Your task to perform on an android device: turn off airplane mode Image 0: 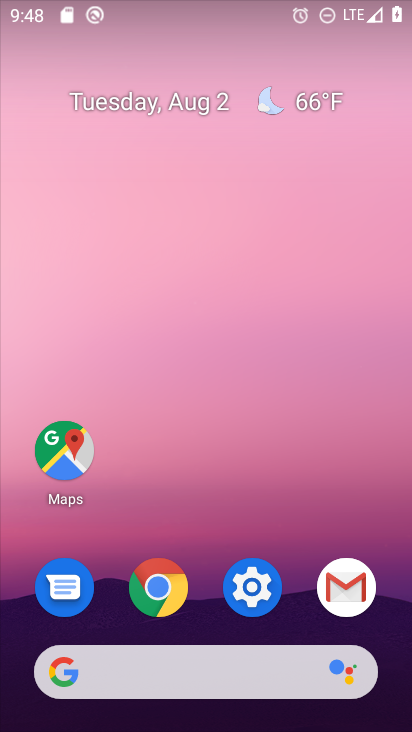
Step 0: click (248, 562)
Your task to perform on an android device: turn off airplane mode Image 1: 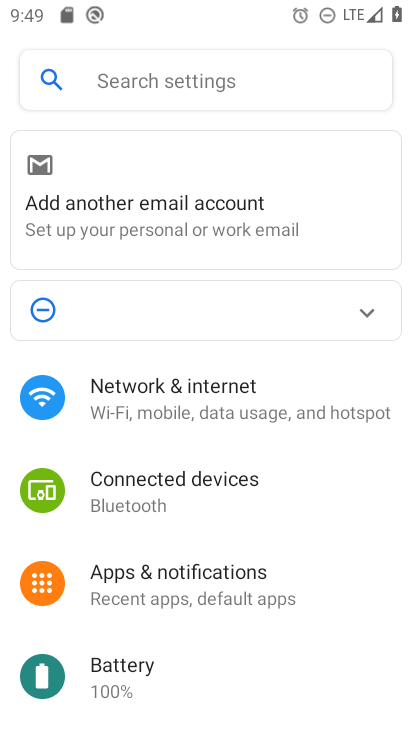
Step 1: click (195, 402)
Your task to perform on an android device: turn off airplane mode Image 2: 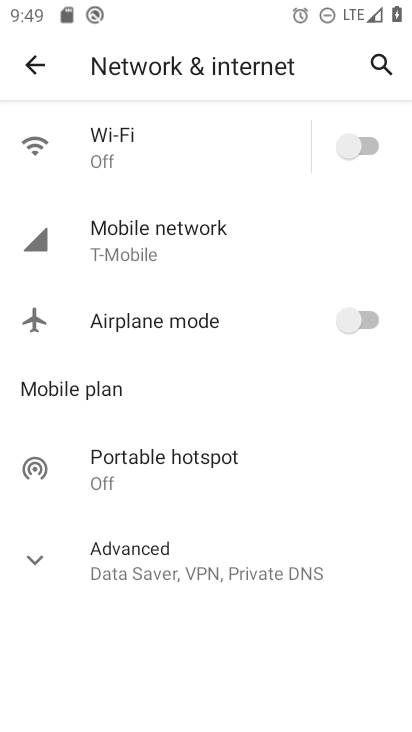
Step 2: click (352, 307)
Your task to perform on an android device: turn off airplane mode Image 3: 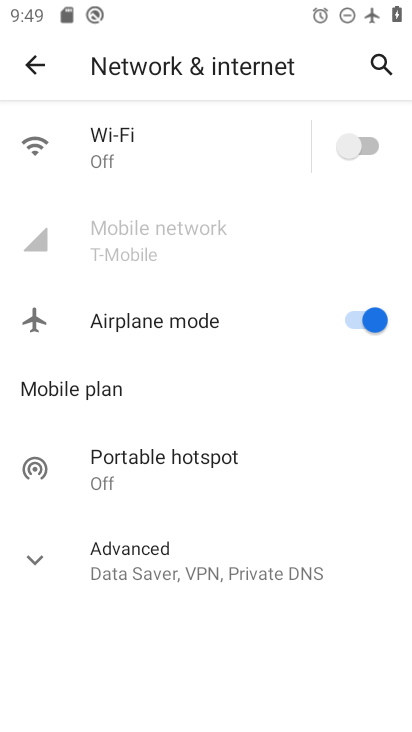
Step 3: click (350, 320)
Your task to perform on an android device: turn off airplane mode Image 4: 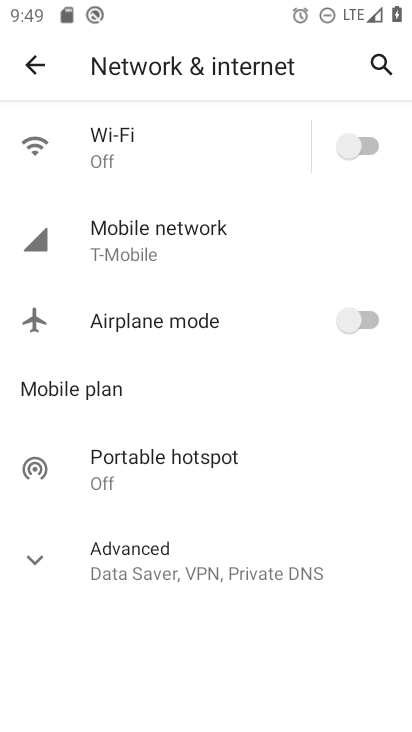
Step 4: task complete